Your task to perform on an android device: Open Google Maps and go to "Timeline" Image 0: 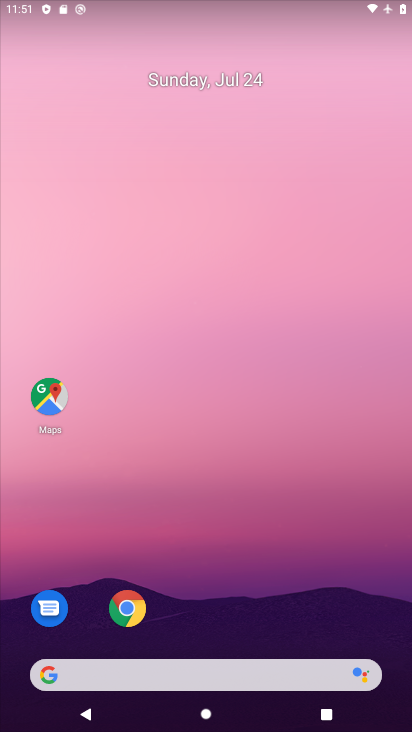
Step 0: drag from (240, 640) to (279, 161)
Your task to perform on an android device: Open Google Maps and go to "Timeline" Image 1: 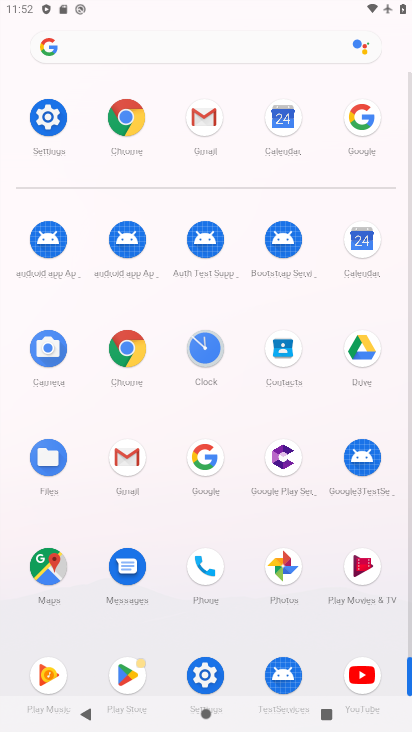
Step 1: drag from (235, 587) to (321, 250)
Your task to perform on an android device: Open Google Maps and go to "Timeline" Image 2: 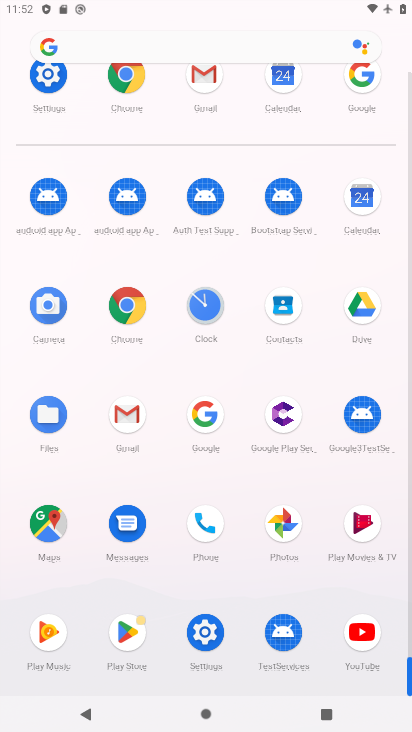
Step 2: click (56, 522)
Your task to perform on an android device: Open Google Maps and go to "Timeline" Image 3: 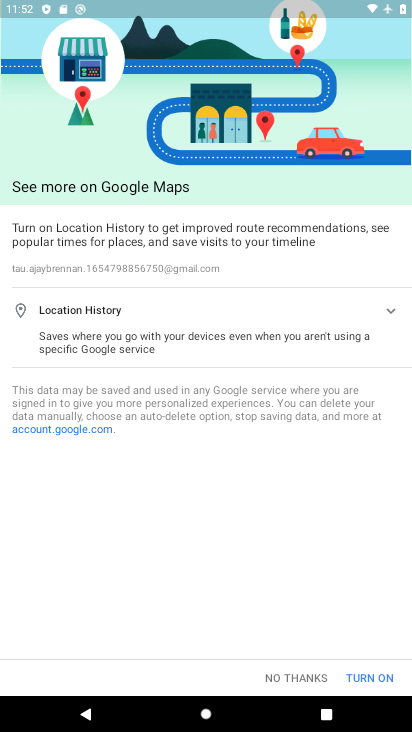
Step 3: click (371, 681)
Your task to perform on an android device: Open Google Maps and go to "Timeline" Image 4: 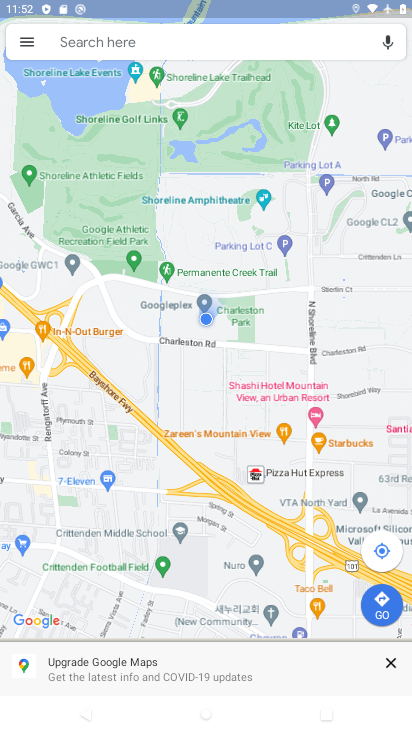
Step 4: click (25, 40)
Your task to perform on an android device: Open Google Maps and go to "Timeline" Image 5: 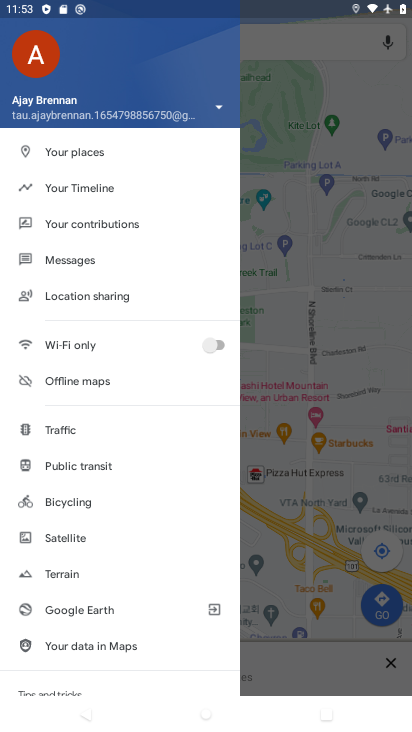
Step 5: click (82, 185)
Your task to perform on an android device: Open Google Maps and go to "Timeline" Image 6: 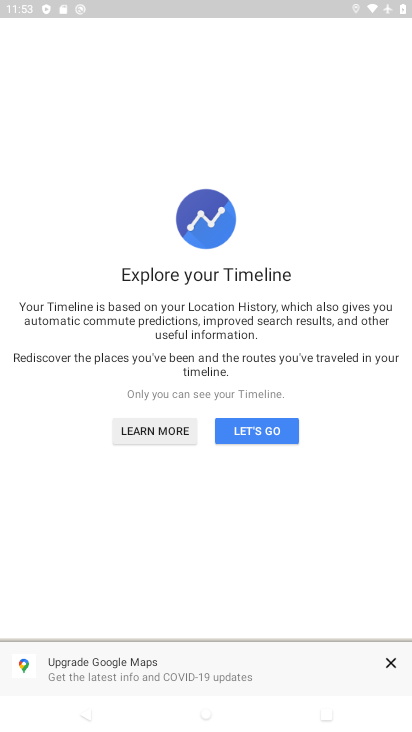
Step 6: click (257, 431)
Your task to perform on an android device: Open Google Maps and go to "Timeline" Image 7: 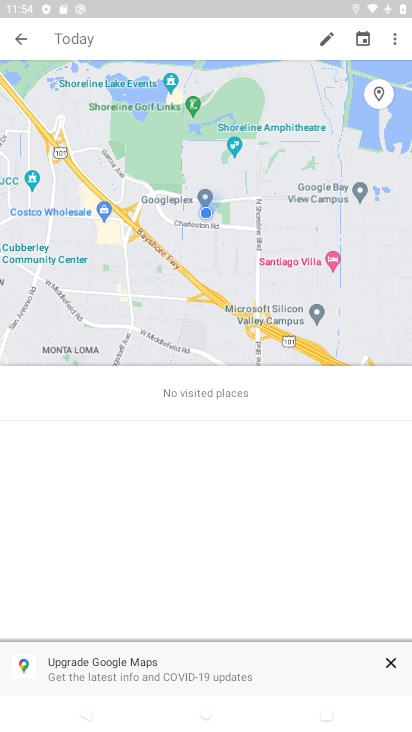
Step 7: task complete